Your task to perform on an android device: Open Chrome and go to settings Image 0: 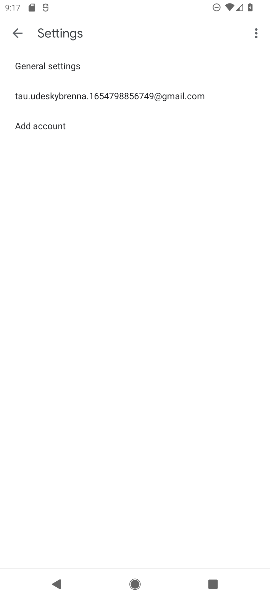
Step 0: press home button
Your task to perform on an android device: Open Chrome and go to settings Image 1: 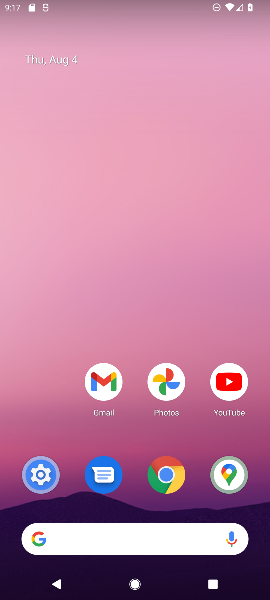
Step 1: drag from (126, 500) to (190, 232)
Your task to perform on an android device: Open Chrome and go to settings Image 2: 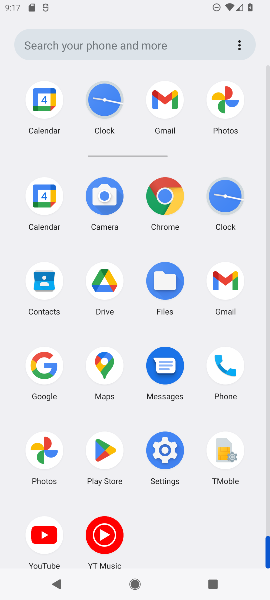
Step 2: click (164, 461)
Your task to perform on an android device: Open Chrome and go to settings Image 3: 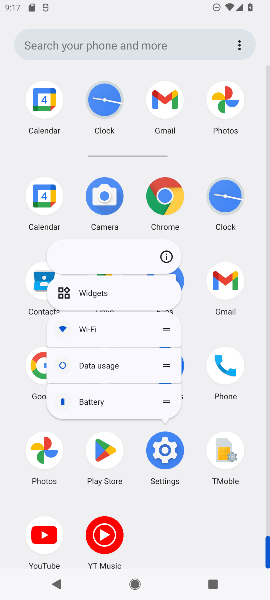
Step 3: click (167, 247)
Your task to perform on an android device: Open Chrome and go to settings Image 4: 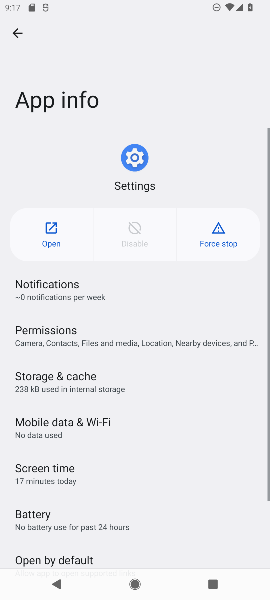
Step 4: click (38, 241)
Your task to perform on an android device: Open Chrome and go to settings Image 5: 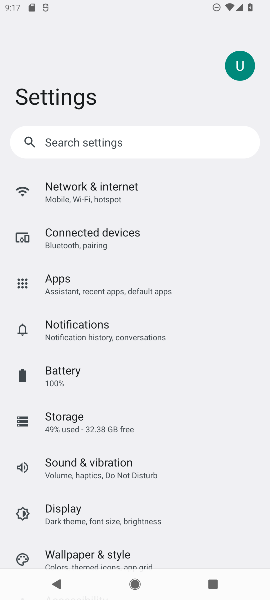
Step 5: drag from (144, 476) to (154, 179)
Your task to perform on an android device: Open Chrome and go to settings Image 6: 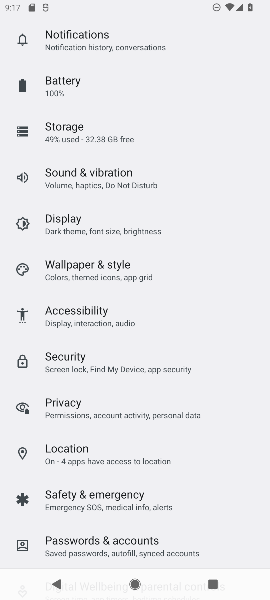
Step 6: drag from (208, 203) to (213, 579)
Your task to perform on an android device: Open Chrome and go to settings Image 7: 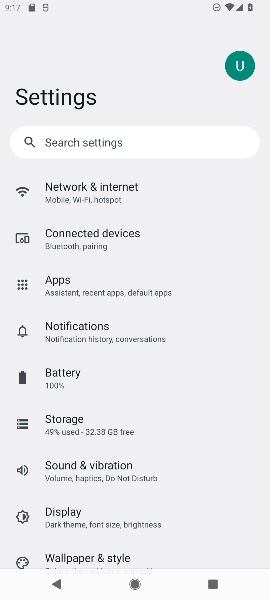
Step 7: press home button
Your task to perform on an android device: Open Chrome and go to settings Image 8: 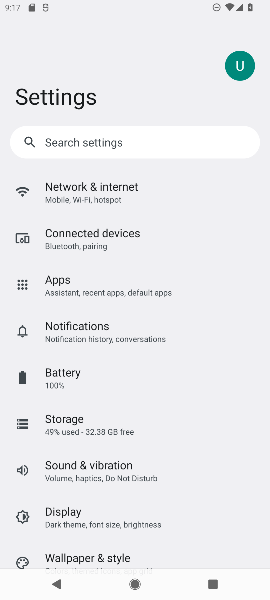
Step 8: drag from (213, 579) to (264, 398)
Your task to perform on an android device: Open Chrome and go to settings Image 9: 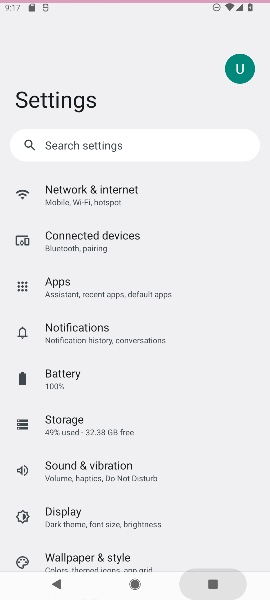
Step 9: drag from (167, 498) to (216, 175)
Your task to perform on an android device: Open Chrome and go to settings Image 10: 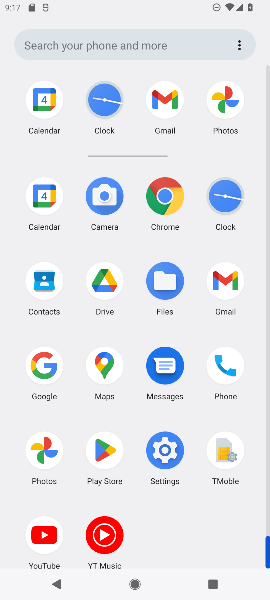
Step 10: click (165, 203)
Your task to perform on an android device: Open Chrome and go to settings Image 11: 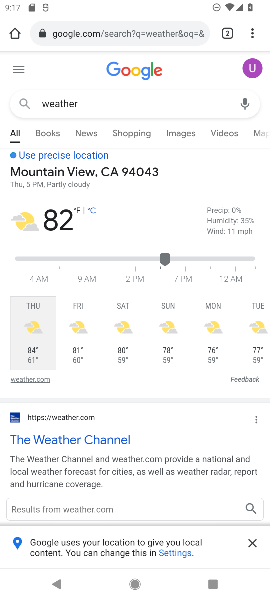
Step 11: task complete